Your task to perform on an android device: When is my next appointment? Image 0: 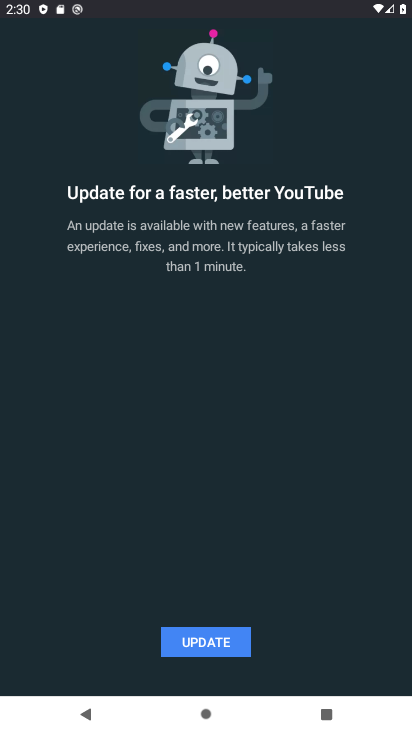
Step 0: press back button
Your task to perform on an android device: When is my next appointment? Image 1: 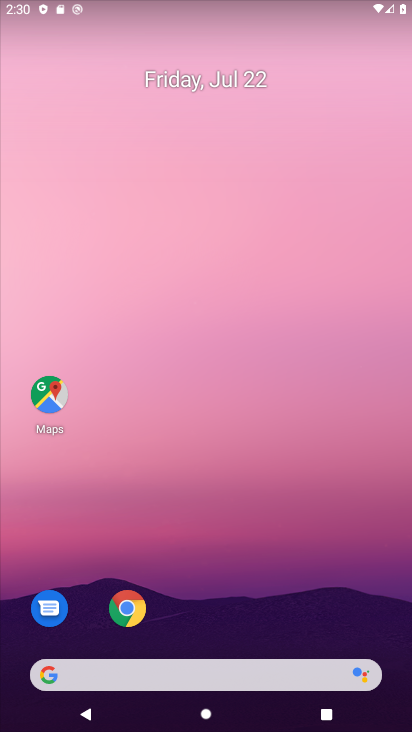
Step 1: drag from (357, 592) to (315, 242)
Your task to perform on an android device: When is my next appointment? Image 2: 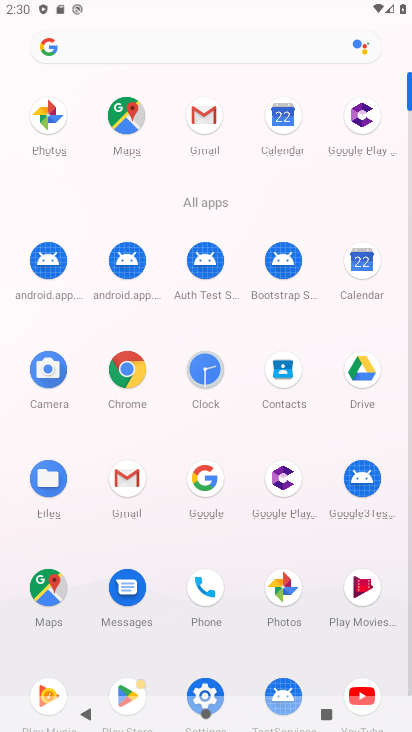
Step 2: click (365, 277)
Your task to perform on an android device: When is my next appointment? Image 3: 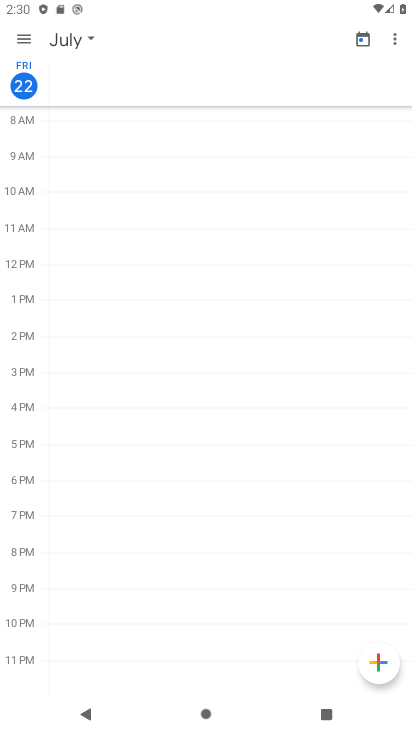
Step 3: click (23, 33)
Your task to perform on an android device: When is my next appointment? Image 4: 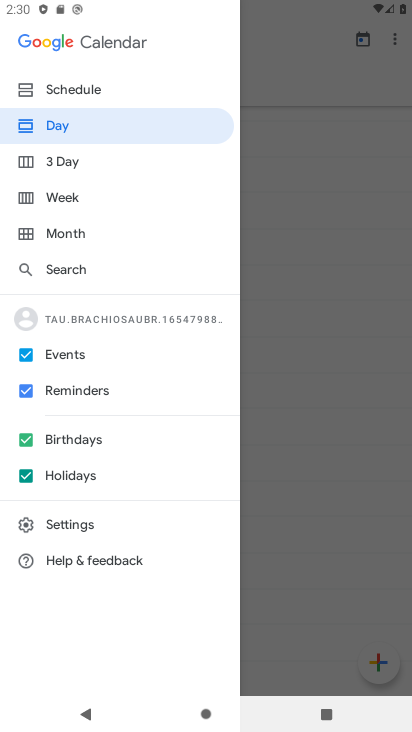
Step 4: click (103, 84)
Your task to perform on an android device: When is my next appointment? Image 5: 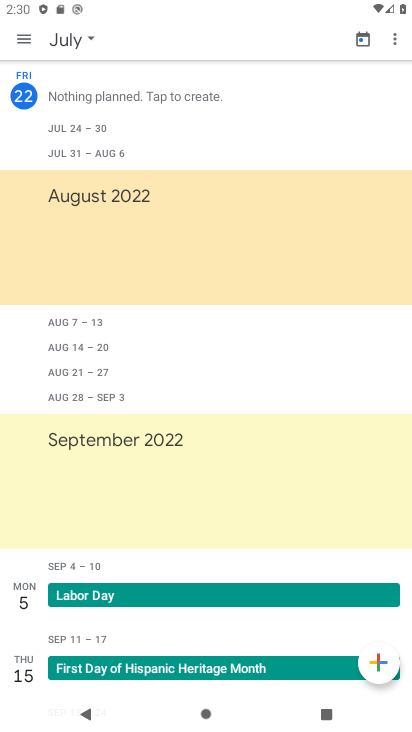
Step 5: task complete